Your task to perform on an android device: Open Wikipedia Image 0: 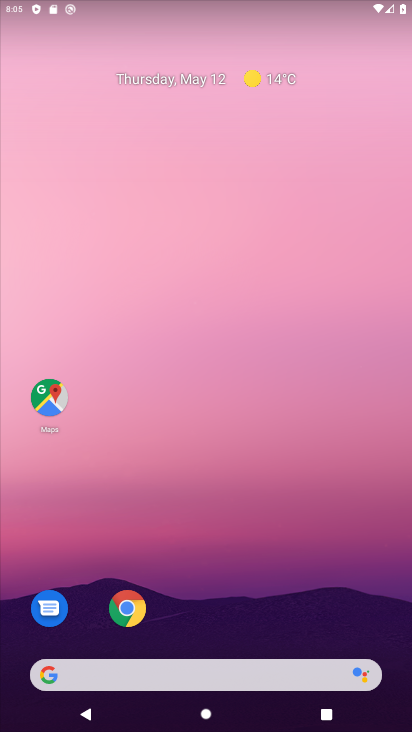
Step 0: click (134, 612)
Your task to perform on an android device: Open Wikipedia Image 1: 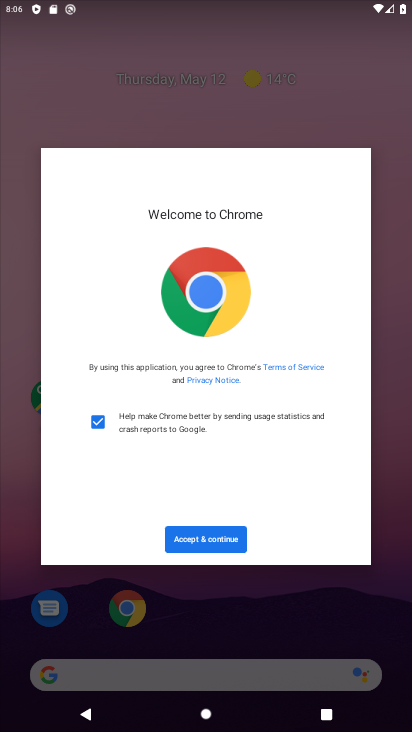
Step 1: click (194, 538)
Your task to perform on an android device: Open Wikipedia Image 2: 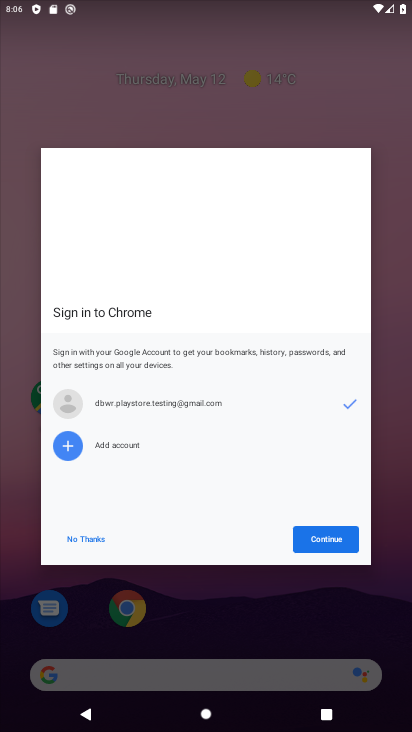
Step 2: click (334, 533)
Your task to perform on an android device: Open Wikipedia Image 3: 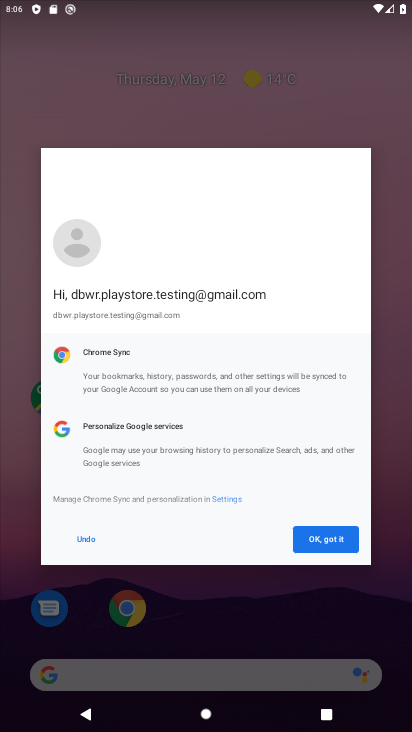
Step 3: click (328, 537)
Your task to perform on an android device: Open Wikipedia Image 4: 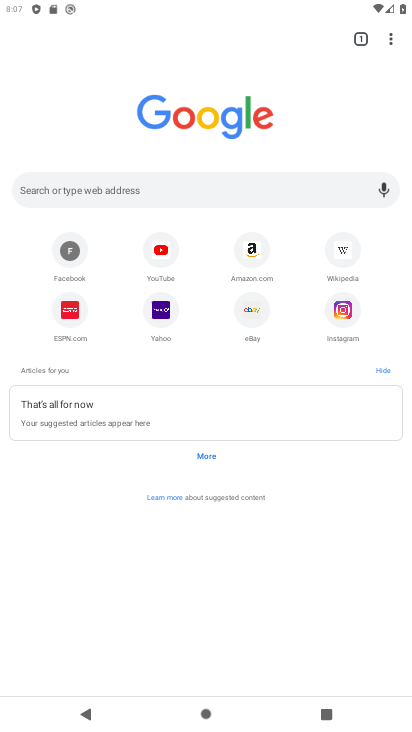
Step 4: click (329, 237)
Your task to perform on an android device: Open Wikipedia Image 5: 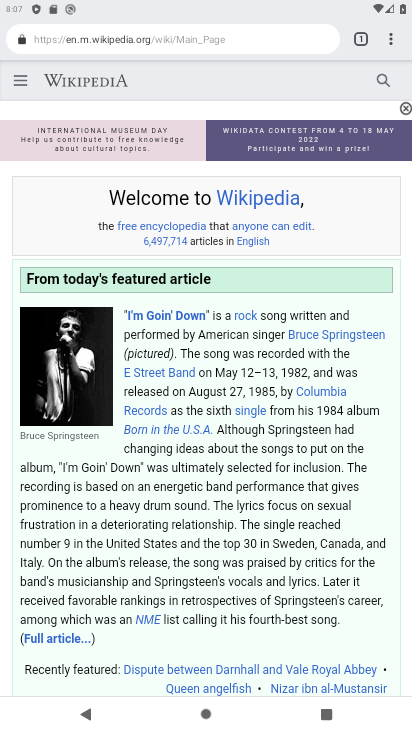
Step 5: task complete